Your task to perform on an android device: change the clock style Image 0: 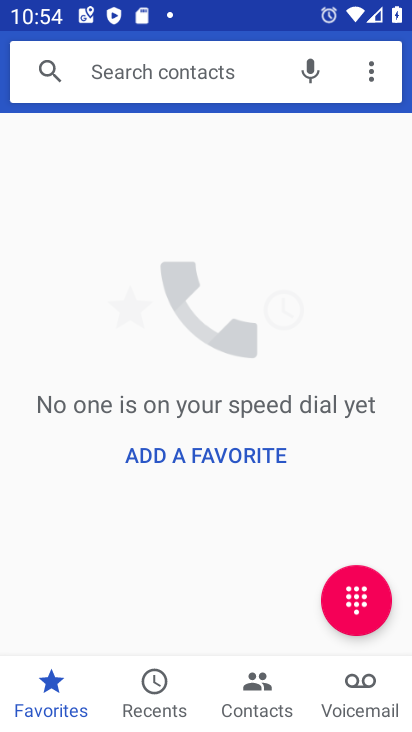
Step 0: press home button
Your task to perform on an android device: change the clock style Image 1: 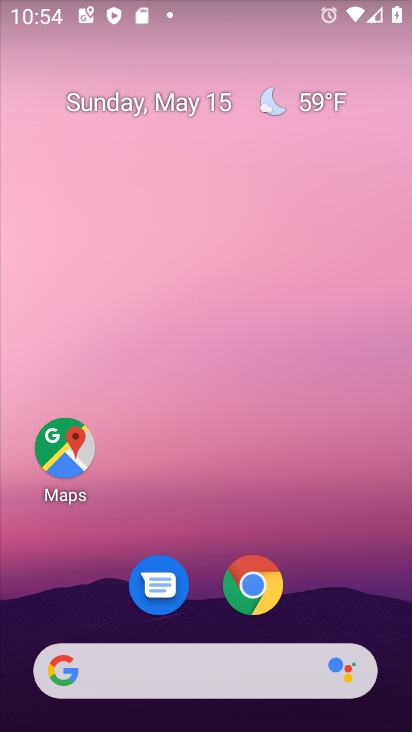
Step 1: drag from (264, 501) to (265, 60)
Your task to perform on an android device: change the clock style Image 2: 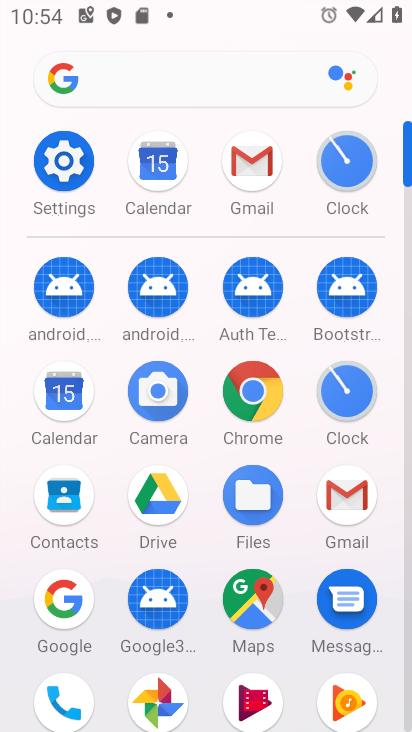
Step 2: click (342, 174)
Your task to perform on an android device: change the clock style Image 3: 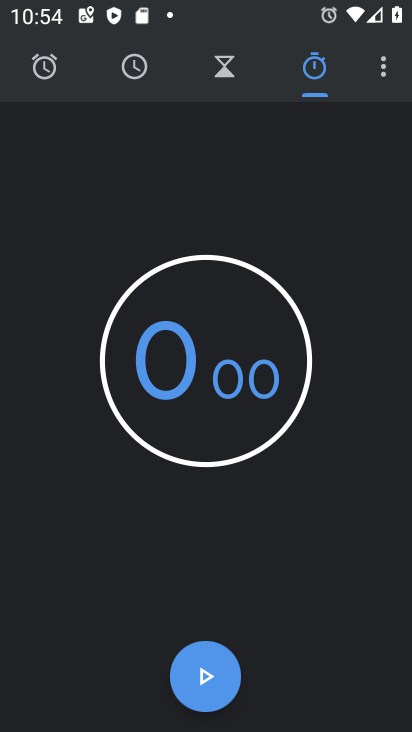
Step 3: click (142, 73)
Your task to perform on an android device: change the clock style Image 4: 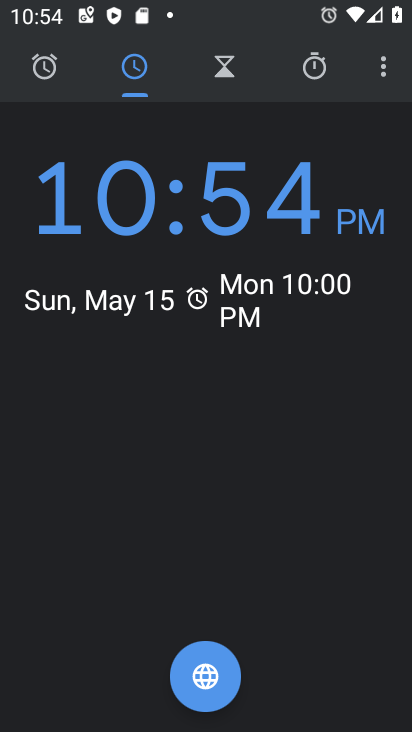
Step 4: click (380, 71)
Your task to perform on an android device: change the clock style Image 5: 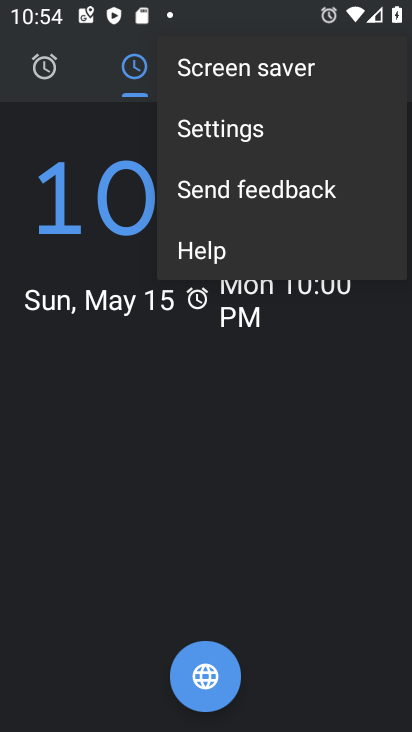
Step 5: click (263, 130)
Your task to perform on an android device: change the clock style Image 6: 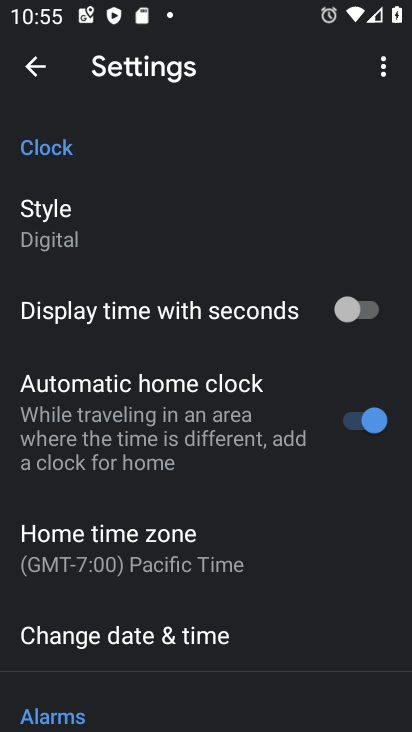
Step 6: click (112, 240)
Your task to perform on an android device: change the clock style Image 7: 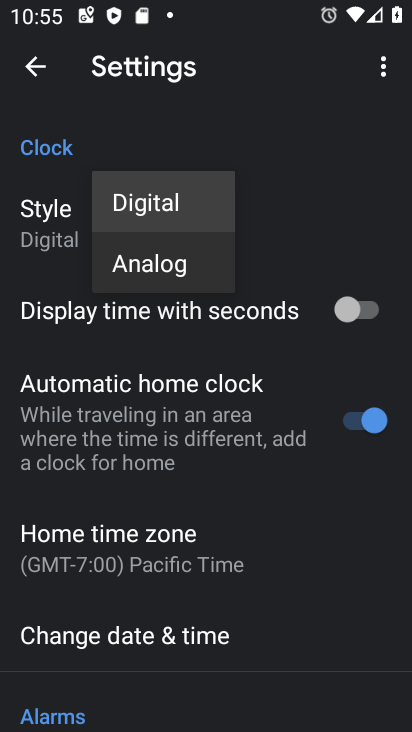
Step 7: click (125, 256)
Your task to perform on an android device: change the clock style Image 8: 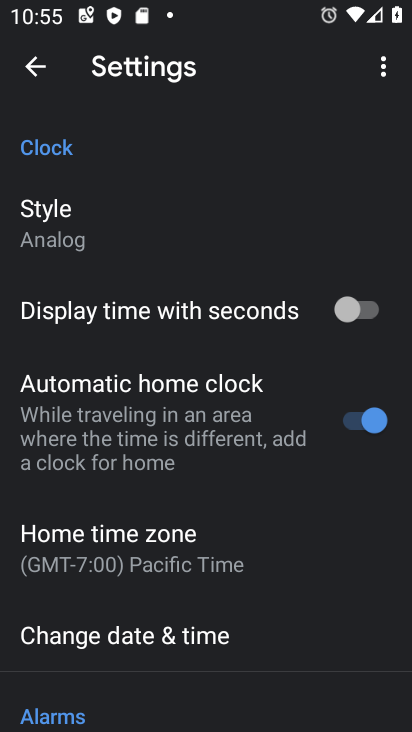
Step 8: click (40, 63)
Your task to perform on an android device: change the clock style Image 9: 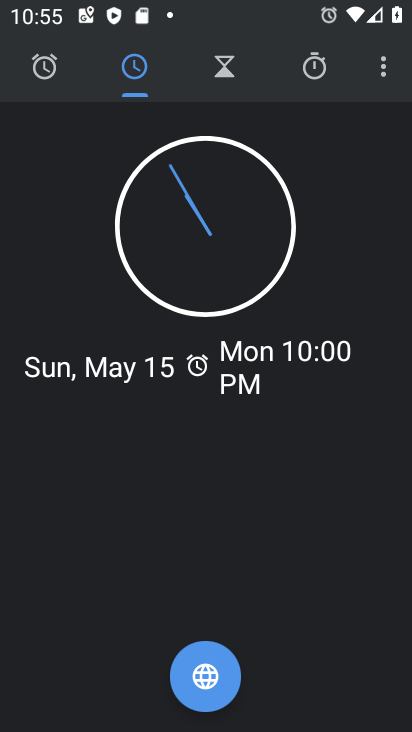
Step 9: task complete